Your task to perform on an android device: Go to ESPN.com Image 0: 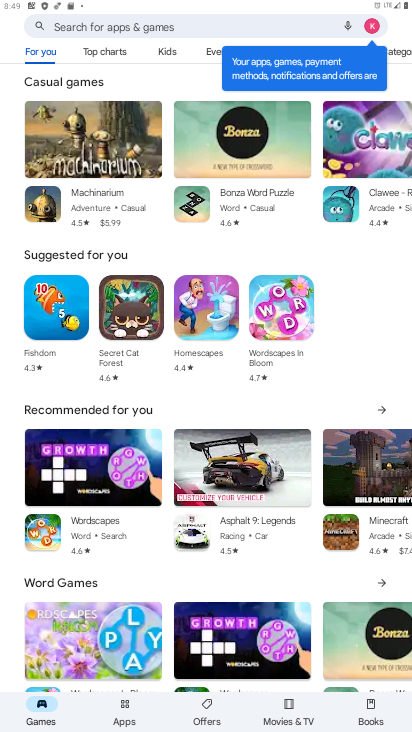
Step 0: press home button
Your task to perform on an android device: Go to ESPN.com Image 1: 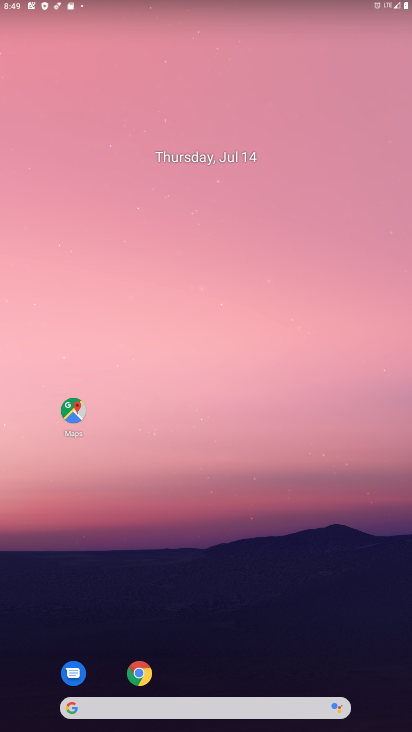
Step 1: click (137, 674)
Your task to perform on an android device: Go to ESPN.com Image 2: 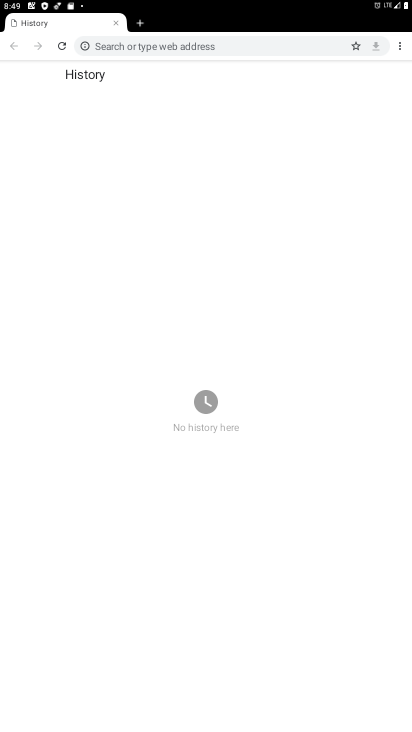
Step 2: click (273, 50)
Your task to perform on an android device: Go to ESPN.com Image 3: 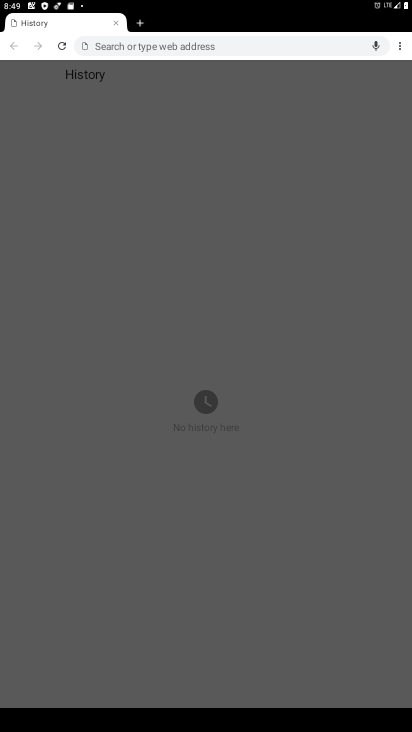
Step 3: type "ESPN.com"
Your task to perform on an android device: Go to ESPN.com Image 4: 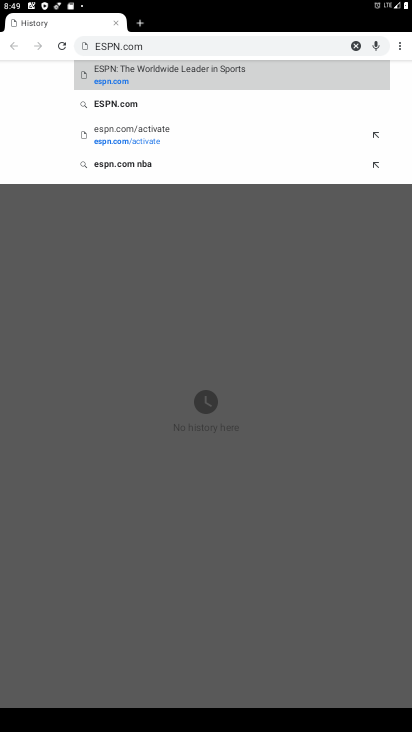
Step 4: click (128, 103)
Your task to perform on an android device: Go to ESPN.com Image 5: 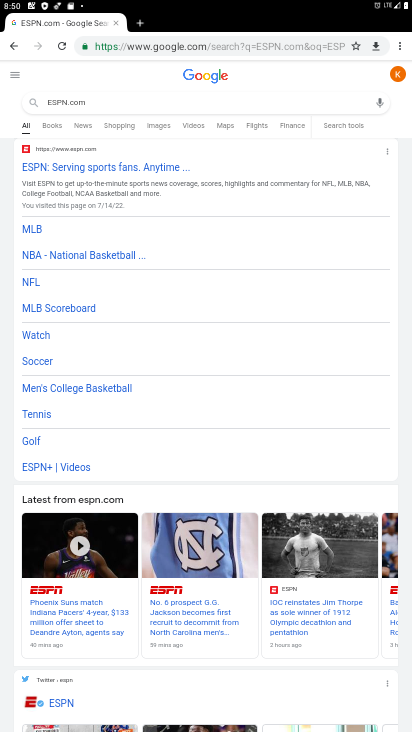
Step 5: click (124, 167)
Your task to perform on an android device: Go to ESPN.com Image 6: 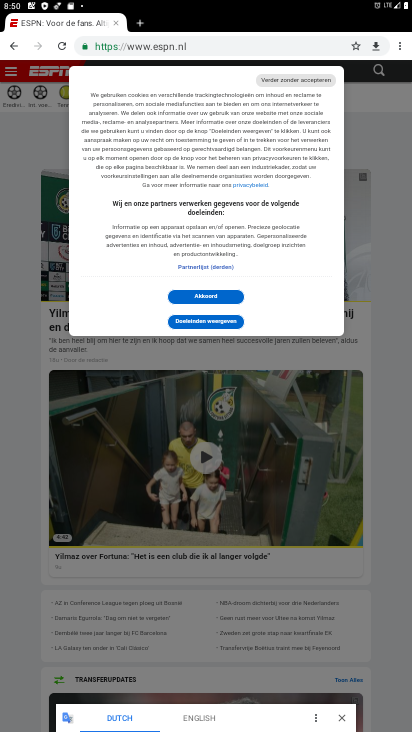
Step 6: task complete